Your task to perform on an android device: Add razer deathadder to the cart on newegg.com Image 0: 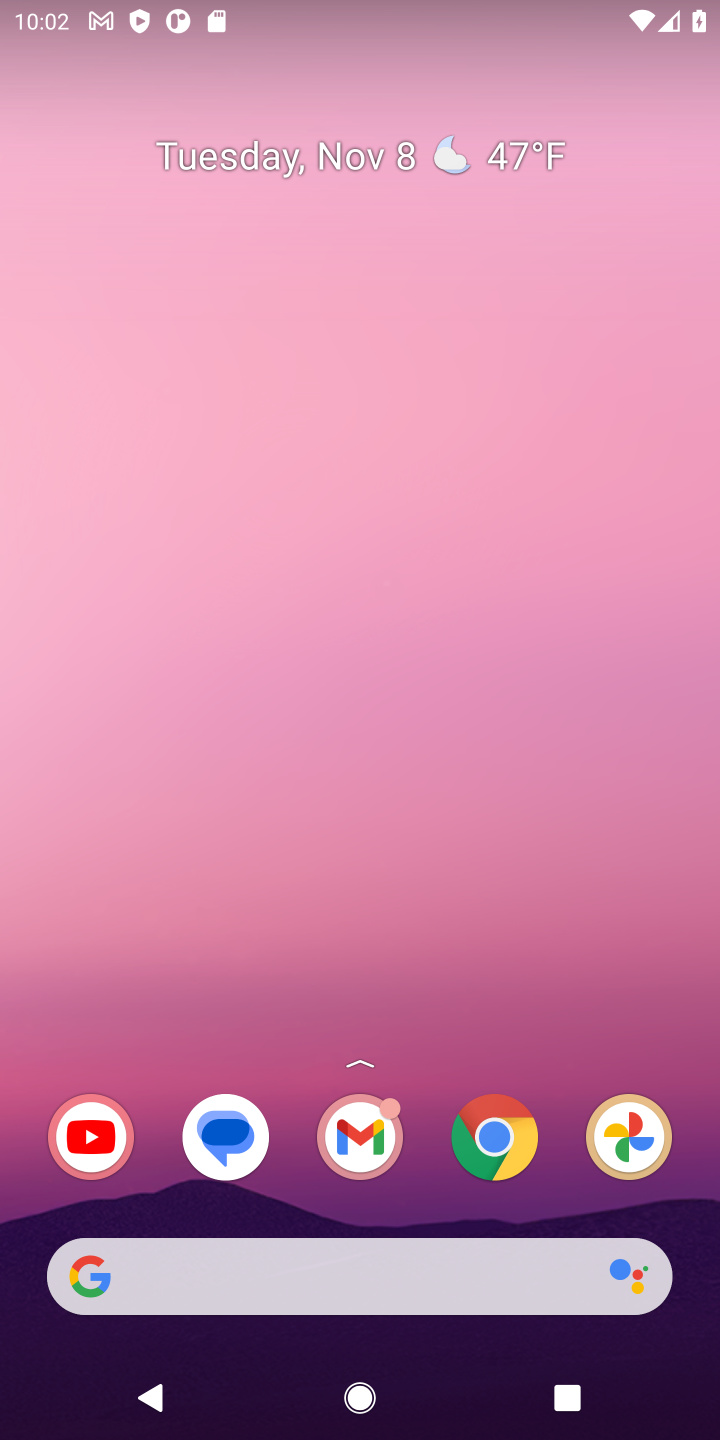
Step 0: click (497, 1134)
Your task to perform on an android device: Add razer deathadder to the cart on newegg.com Image 1: 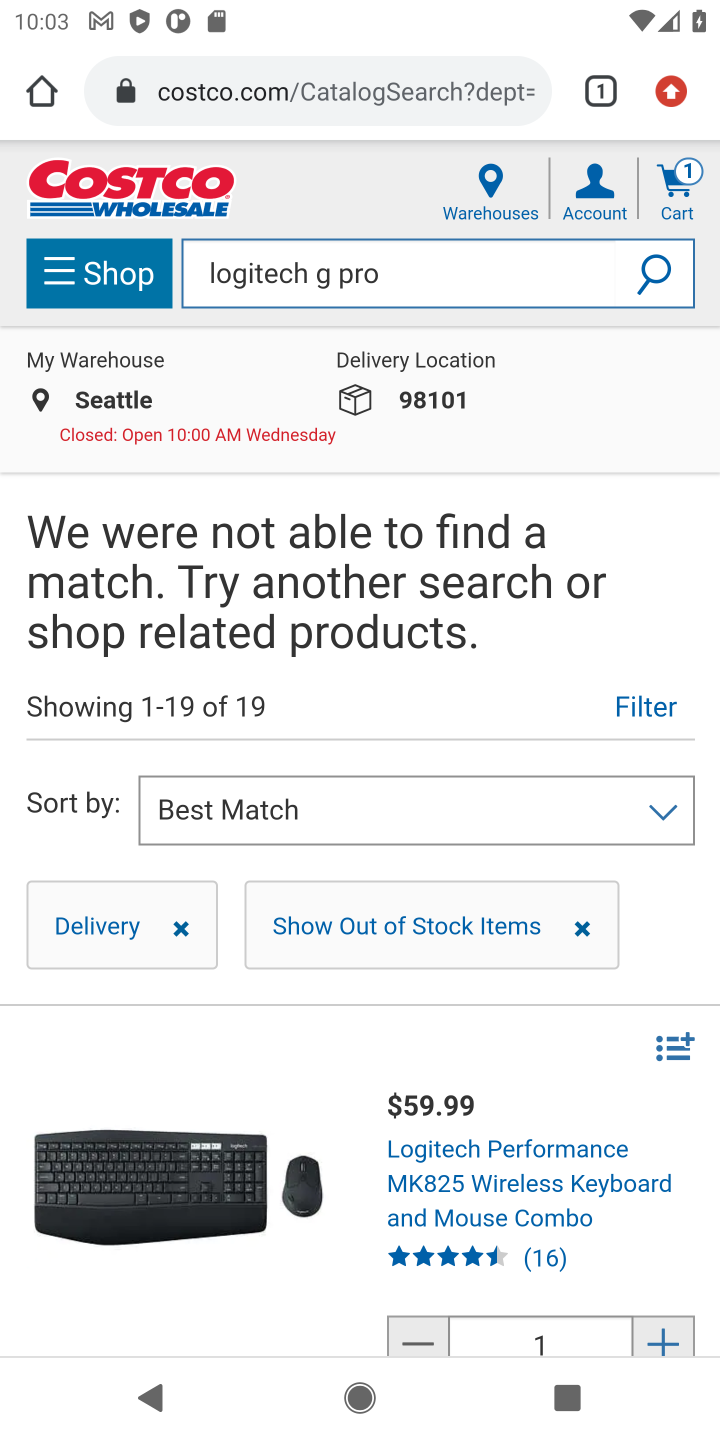
Step 1: click (389, 85)
Your task to perform on an android device: Add razer deathadder to the cart on newegg.com Image 2: 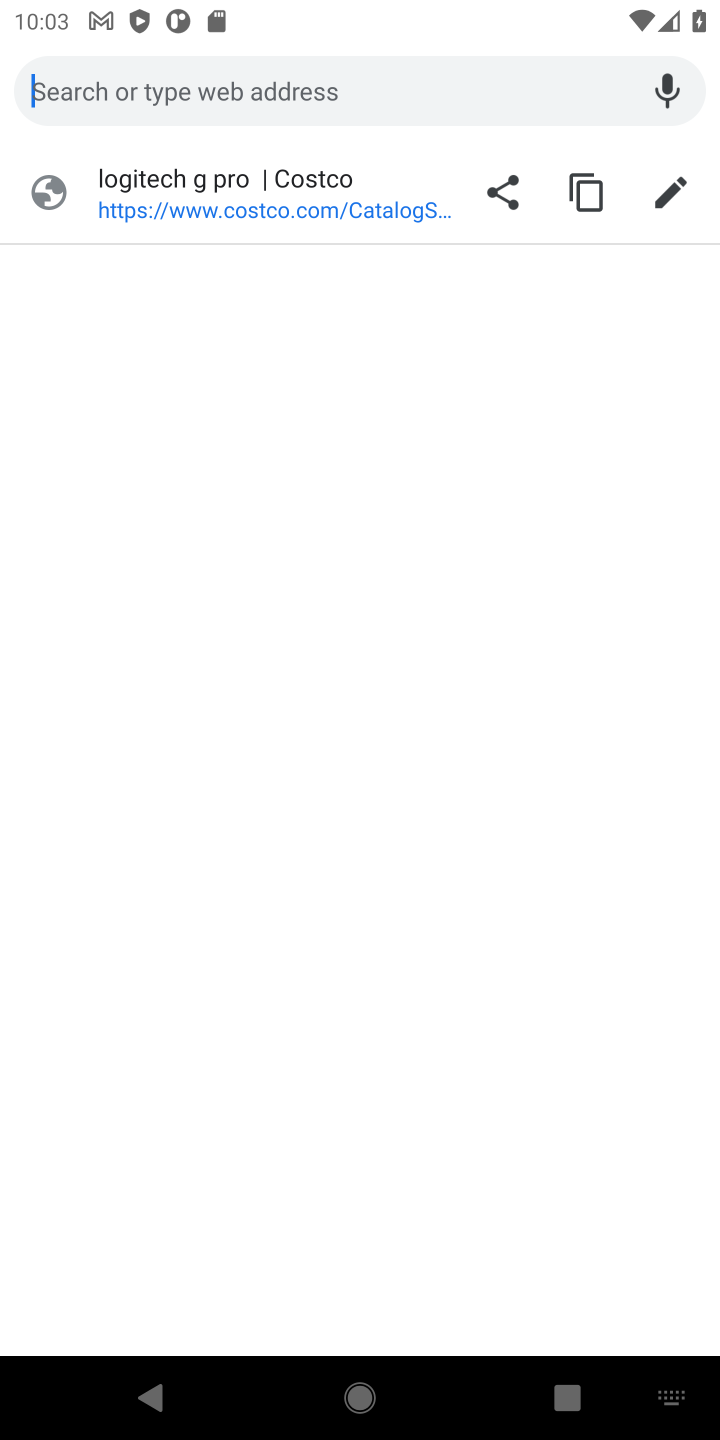
Step 2: type "newegg"
Your task to perform on an android device: Add razer deathadder to the cart on newegg.com Image 3: 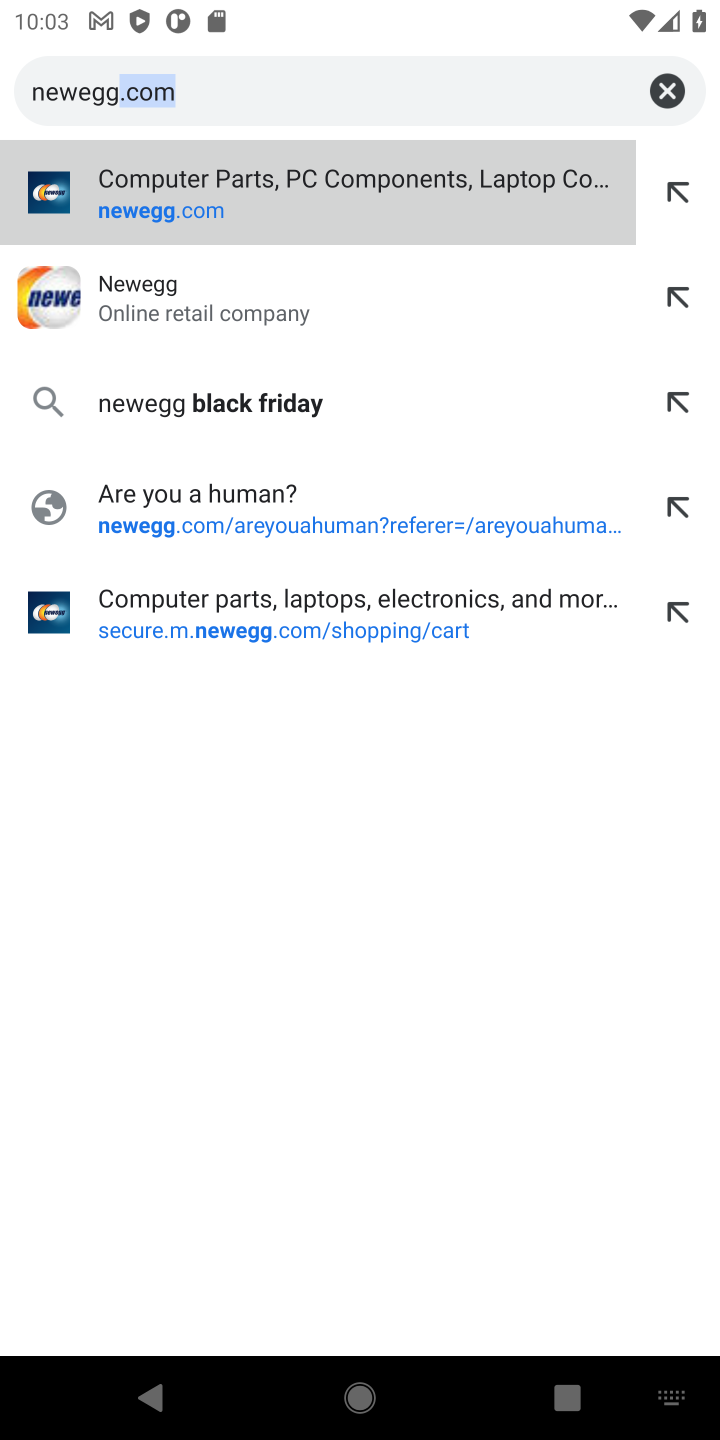
Step 3: click (113, 330)
Your task to perform on an android device: Add razer deathadder to the cart on newegg.com Image 4: 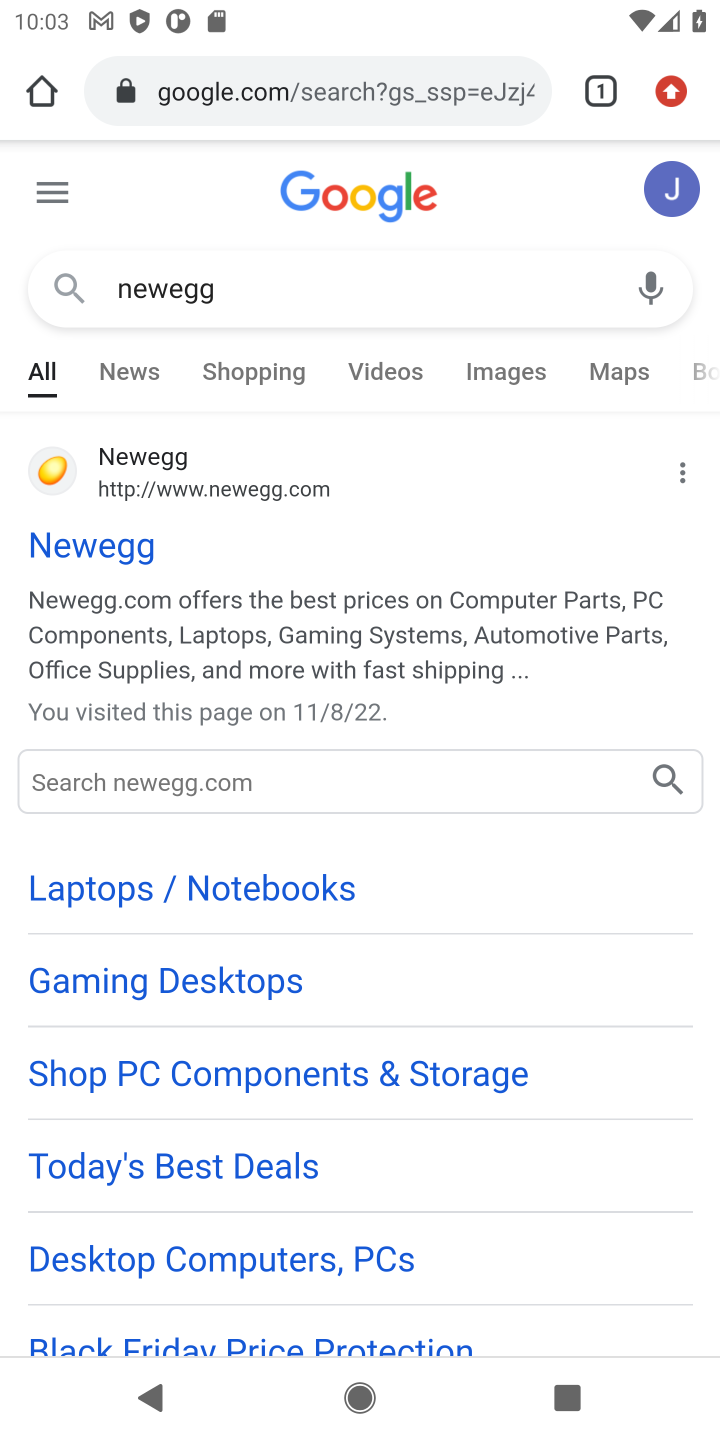
Step 4: click (142, 557)
Your task to perform on an android device: Add razer deathadder to the cart on newegg.com Image 5: 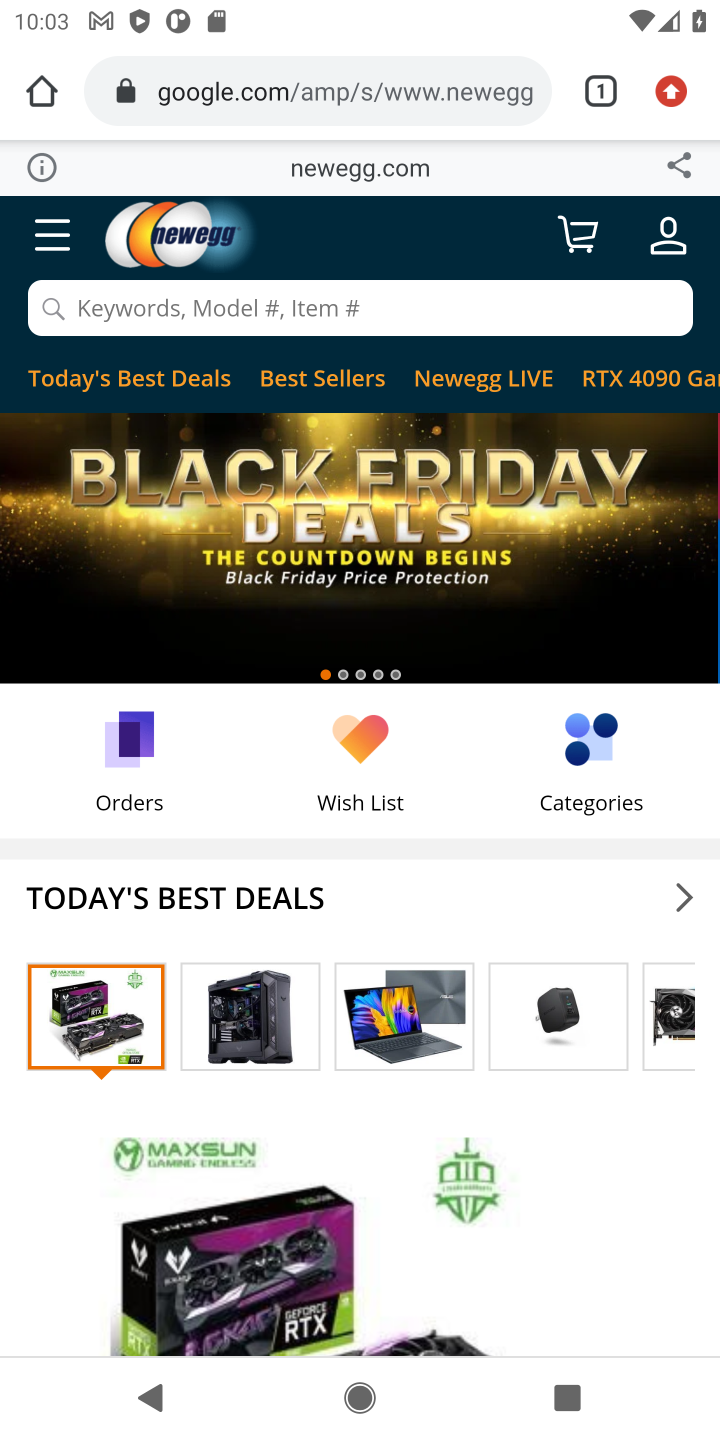
Step 5: click (407, 309)
Your task to perform on an android device: Add razer deathadder to the cart on newegg.com Image 6: 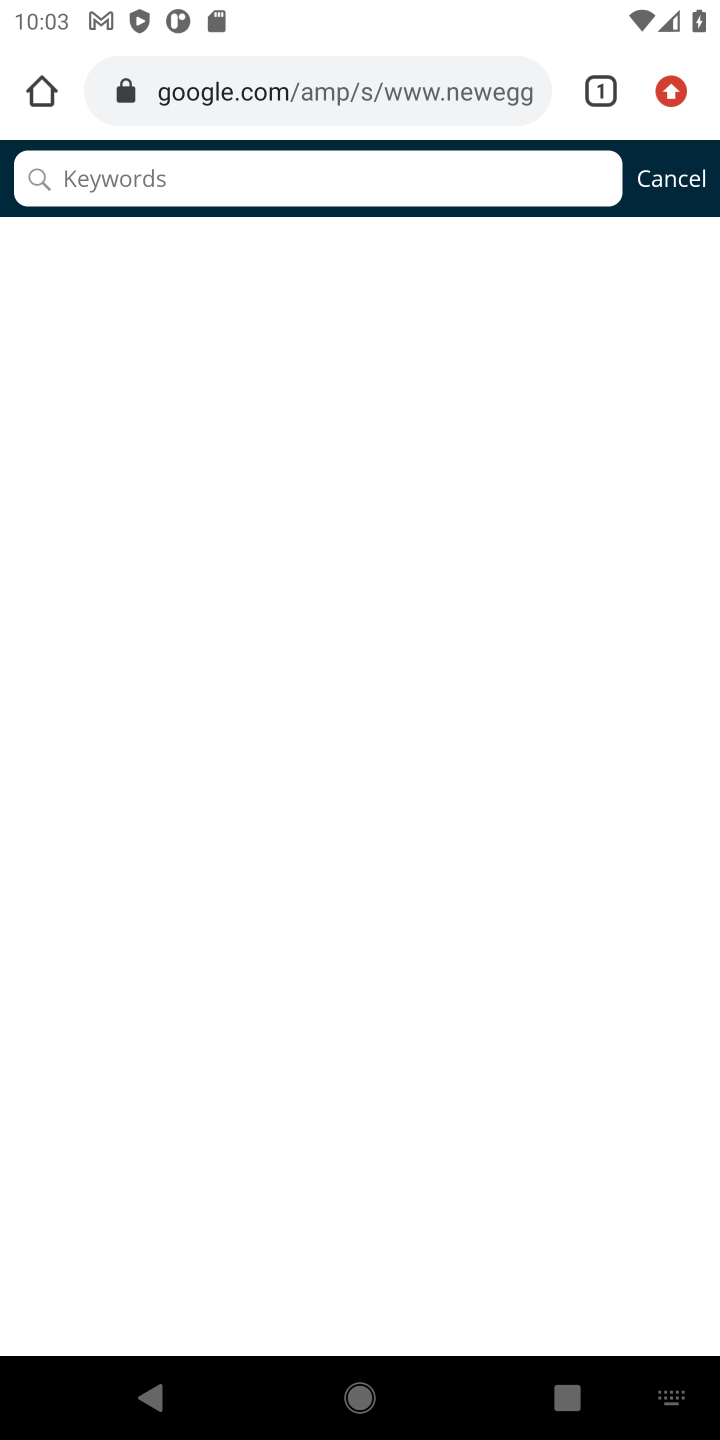
Step 6: type "razer deathadder"
Your task to perform on an android device: Add razer deathadder to the cart on newegg.com Image 7: 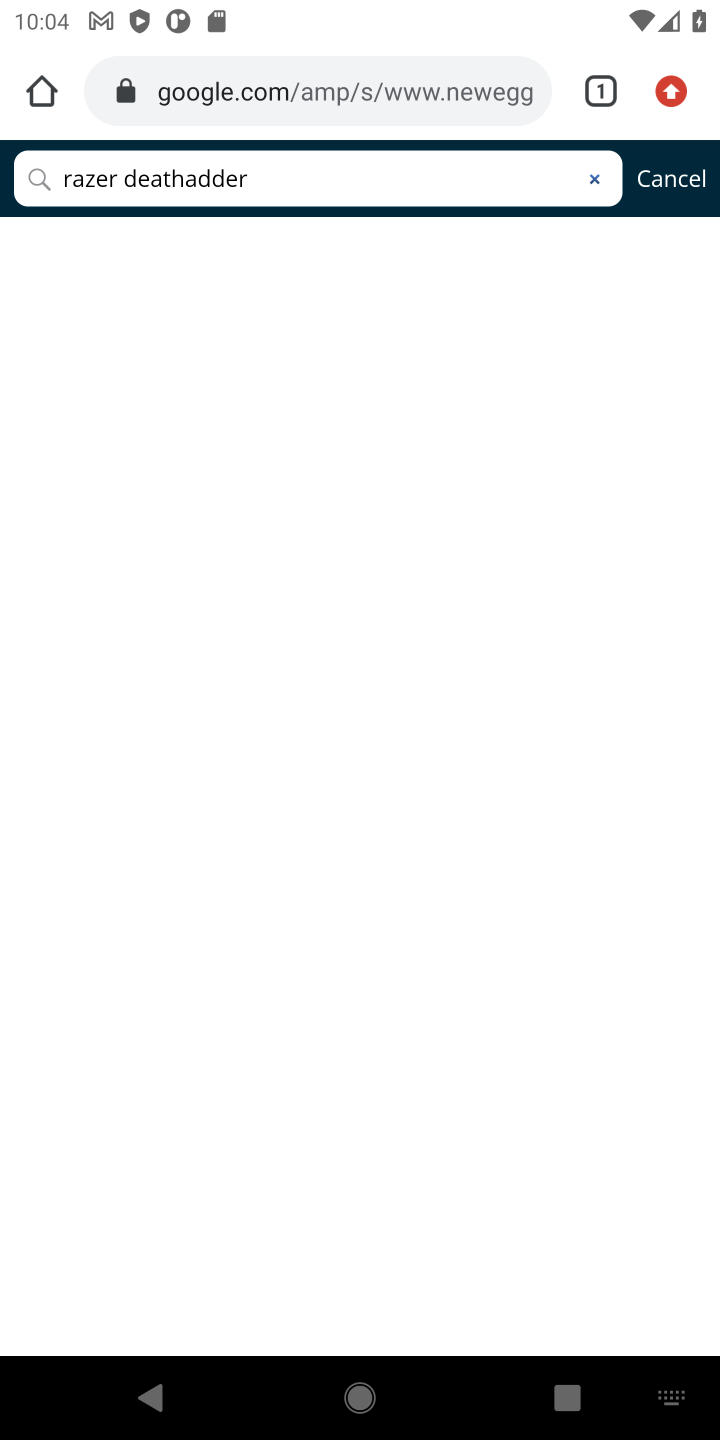
Step 7: task complete